Your task to perform on an android device: check battery use Image 0: 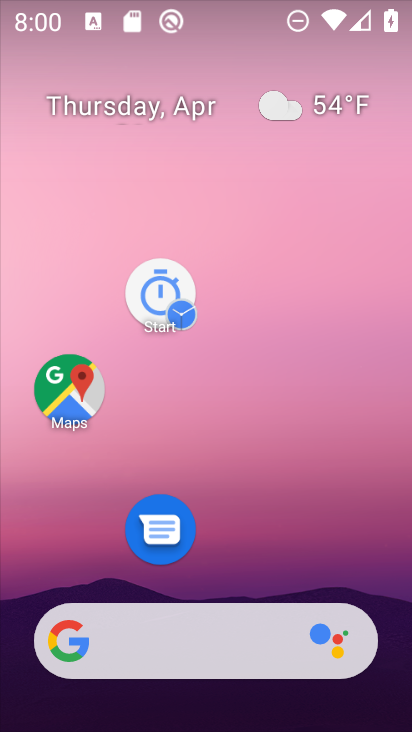
Step 0: drag from (293, 323) to (244, 9)
Your task to perform on an android device: check battery use Image 1: 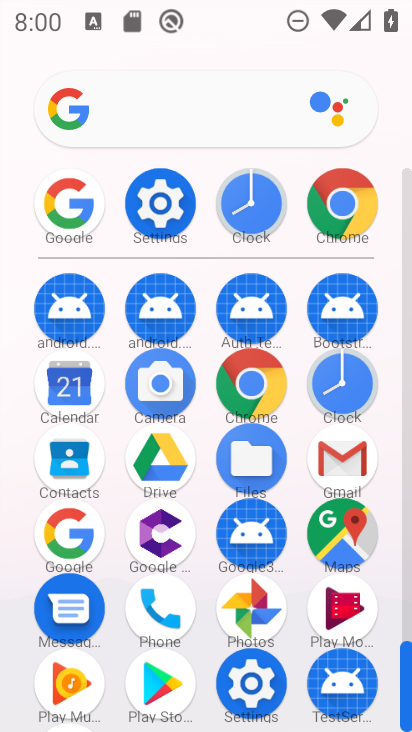
Step 1: click (161, 206)
Your task to perform on an android device: check battery use Image 2: 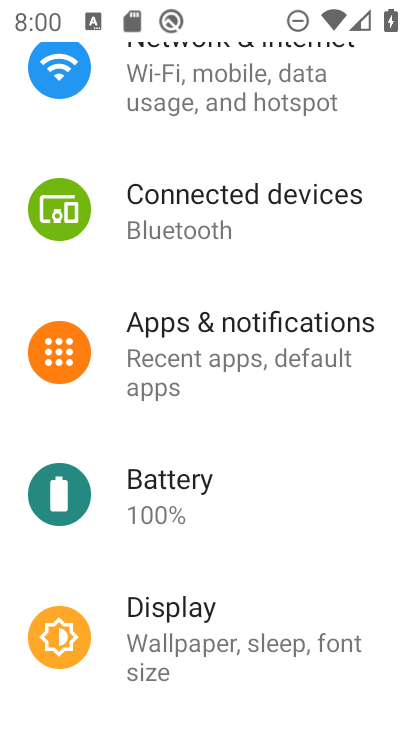
Step 2: drag from (232, 531) to (187, 399)
Your task to perform on an android device: check battery use Image 3: 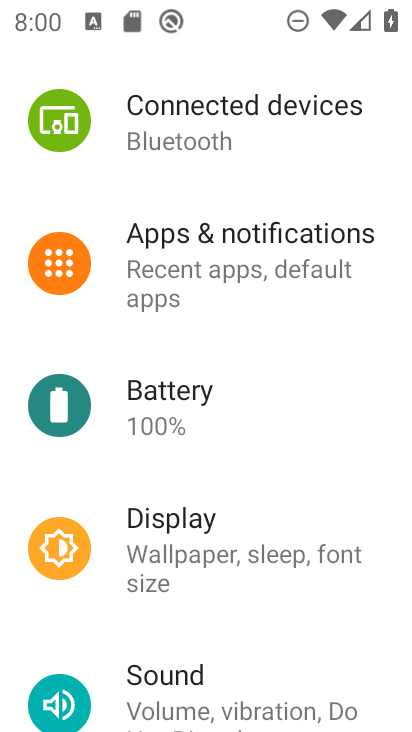
Step 3: click (199, 432)
Your task to perform on an android device: check battery use Image 4: 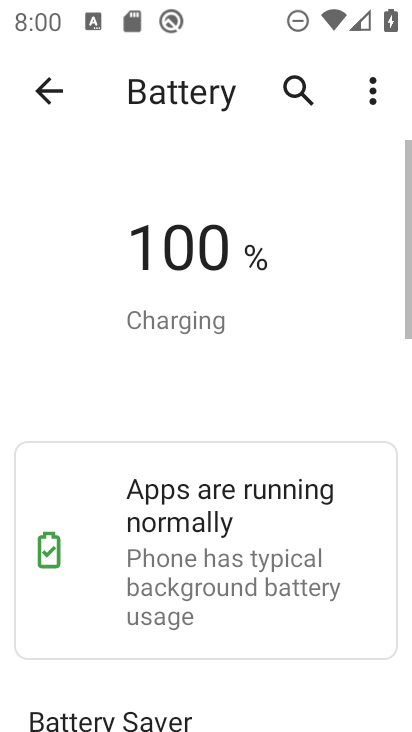
Step 4: task complete